Your task to perform on an android device: Open accessibility settings Image 0: 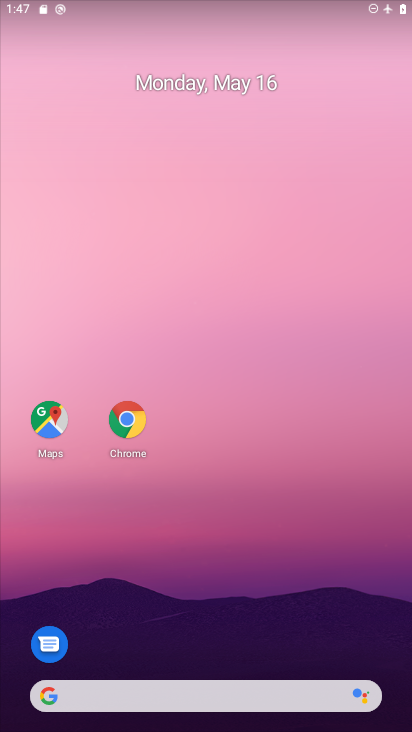
Step 0: drag from (196, 630) to (193, 460)
Your task to perform on an android device: Open accessibility settings Image 1: 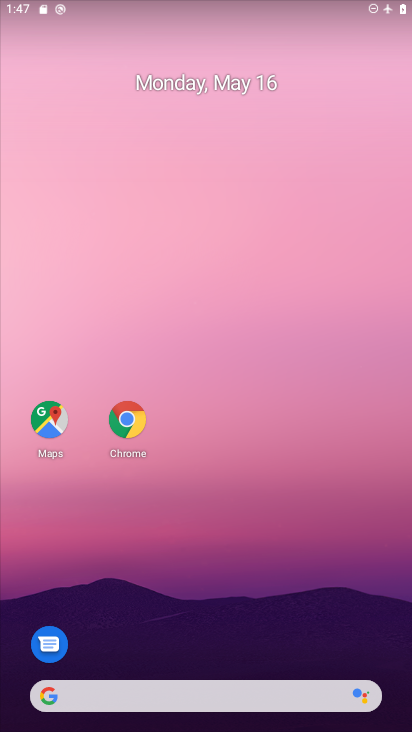
Step 1: drag from (198, 665) to (299, 141)
Your task to perform on an android device: Open accessibility settings Image 2: 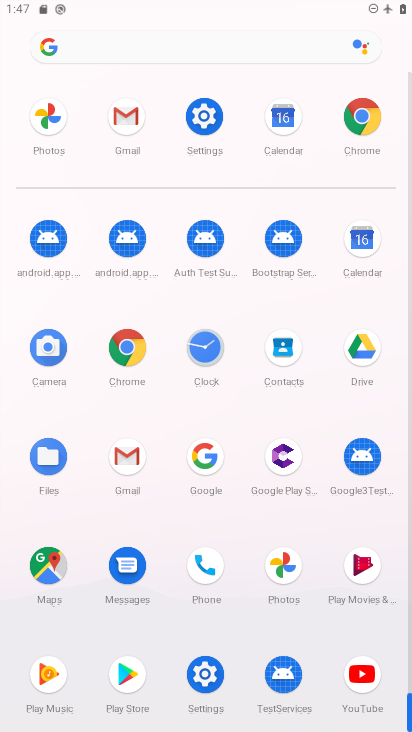
Step 2: click (196, 132)
Your task to perform on an android device: Open accessibility settings Image 3: 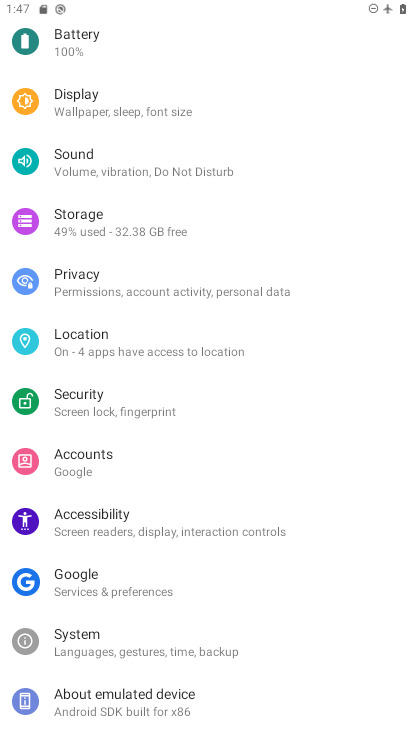
Step 3: click (131, 511)
Your task to perform on an android device: Open accessibility settings Image 4: 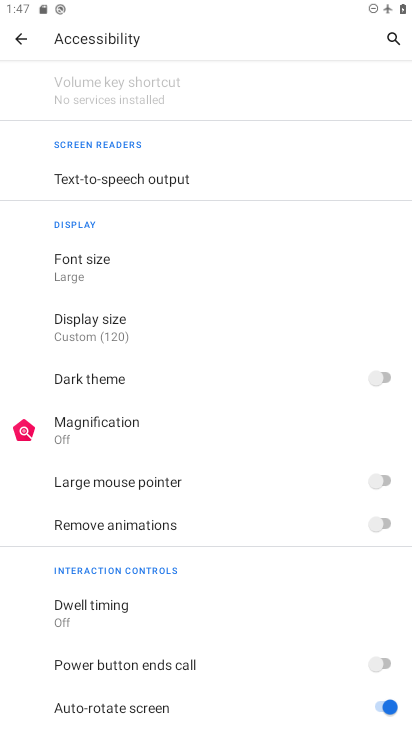
Step 4: task complete